Your task to perform on an android device: Go to settings Image 0: 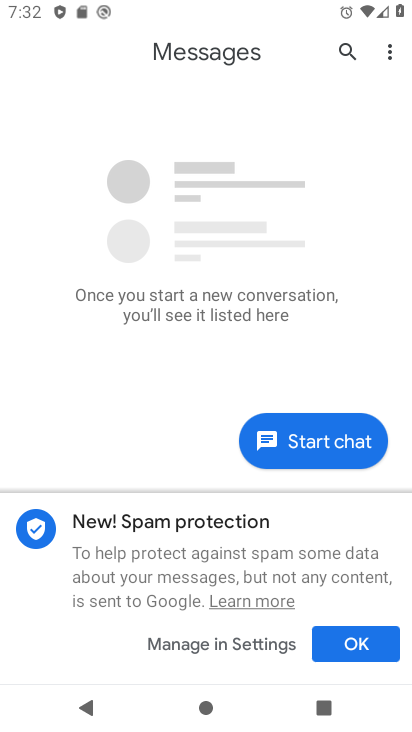
Step 0: click (329, 641)
Your task to perform on an android device: Go to settings Image 1: 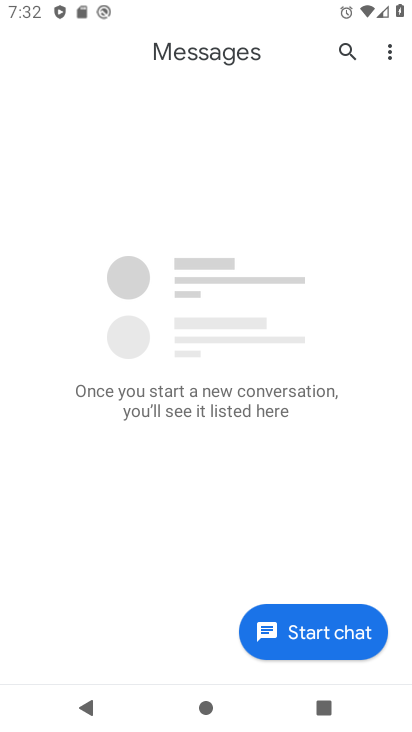
Step 1: press home button
Your task to perform on an android device: Go to settings Image 2: 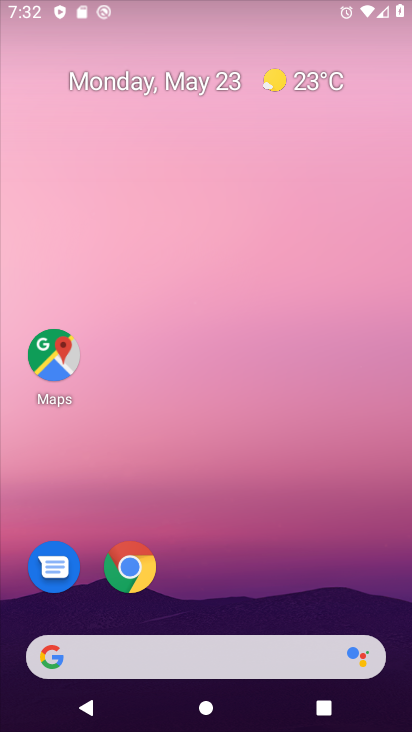
Step 2: drag from (190, 467) to (216, 186)
Your task to perform on an android device: Go to settings Image 3: 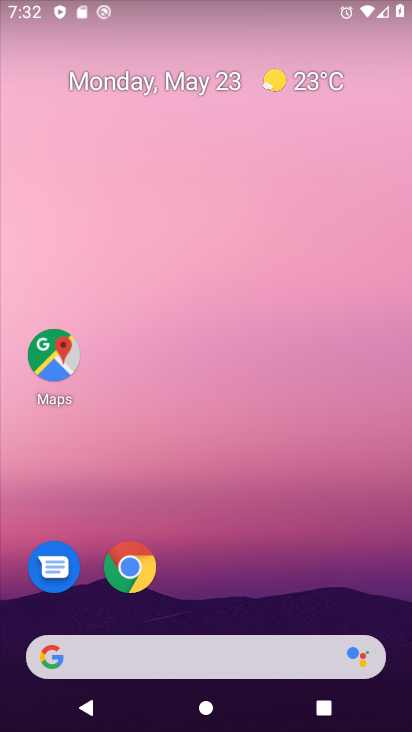
Step 3: drag from (240, 423) to (266, 162)
Your task to perform on an android device: Go to settings Image 4: 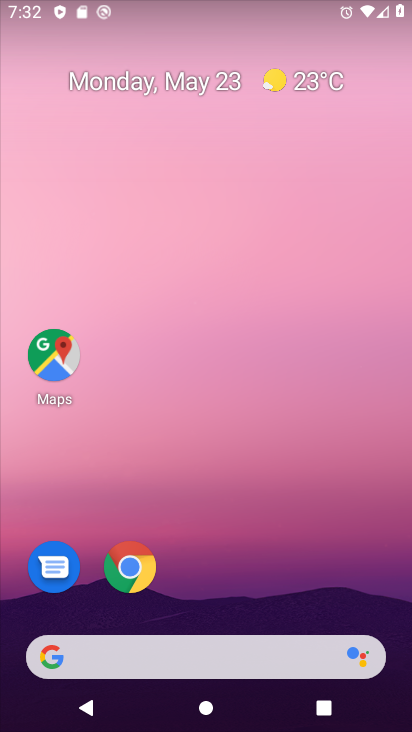
Step 4: drag from (215, 634) to (269, 197)
Your task to perform on an android device: Go to settings Image 5: 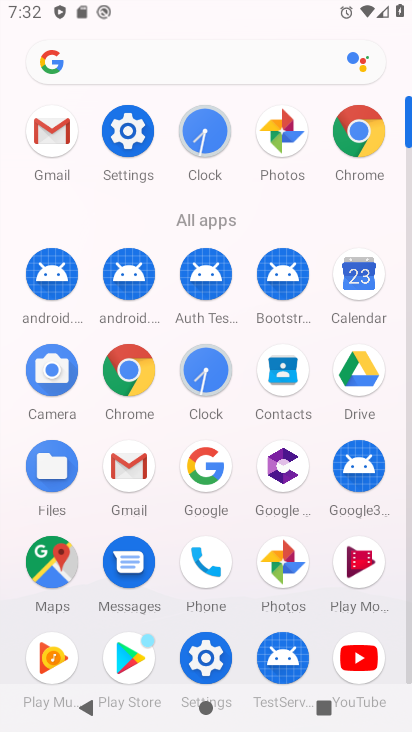
Step 5: click (123, 123)
Your task to perform on an android device: Go to settings Image 6: 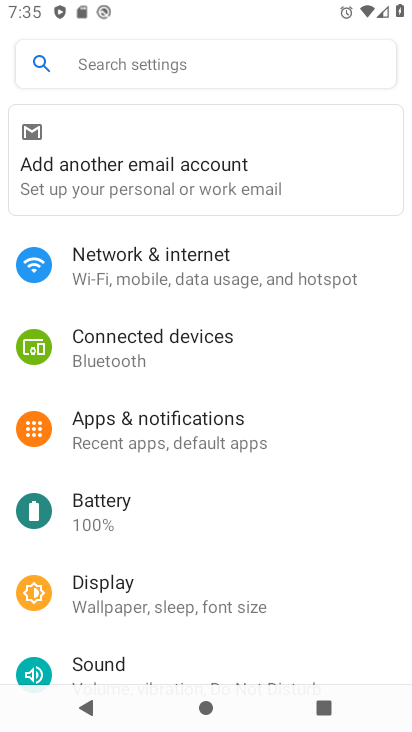
Step 6: task complete